Your task to perform on an android device: open app "Reddit" Image 0: 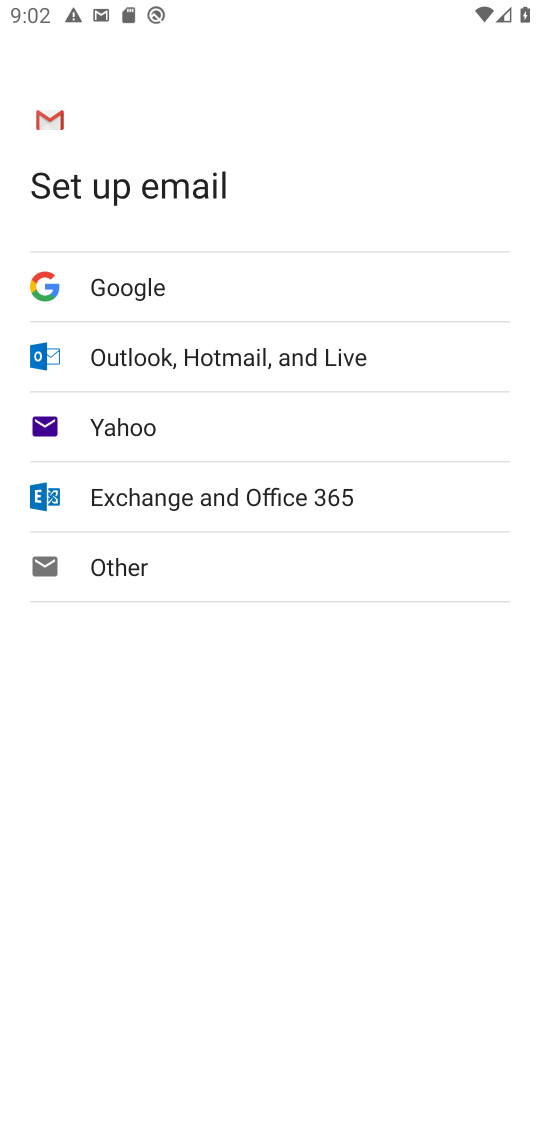
Step 0: press home button
Your task to perform on an android device: open app "Reddit" Image 1: 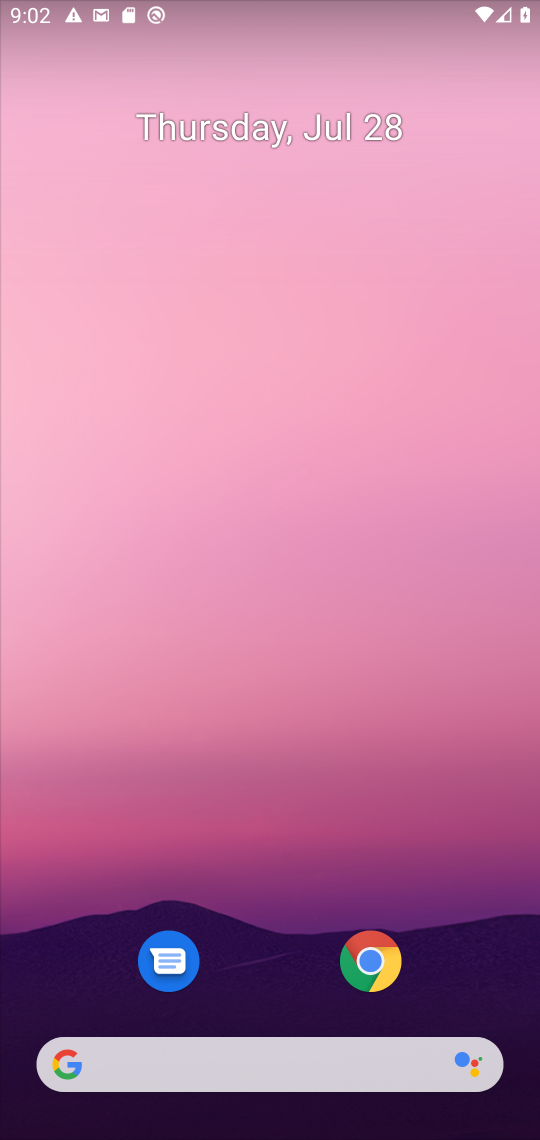
Step 1: drag from (269, 806) to (219, 205)
Your task to perform on an android device: open app "Reddit" Image 2: 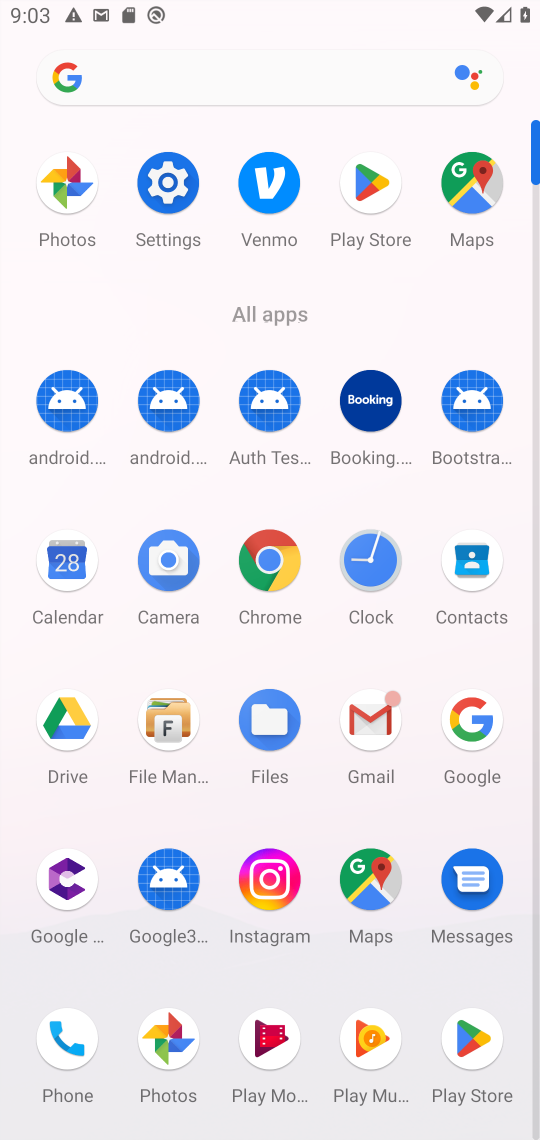
Step 2: click (457, 1025)
Your task to perform on an android device: open app "Reddit" Image 3: 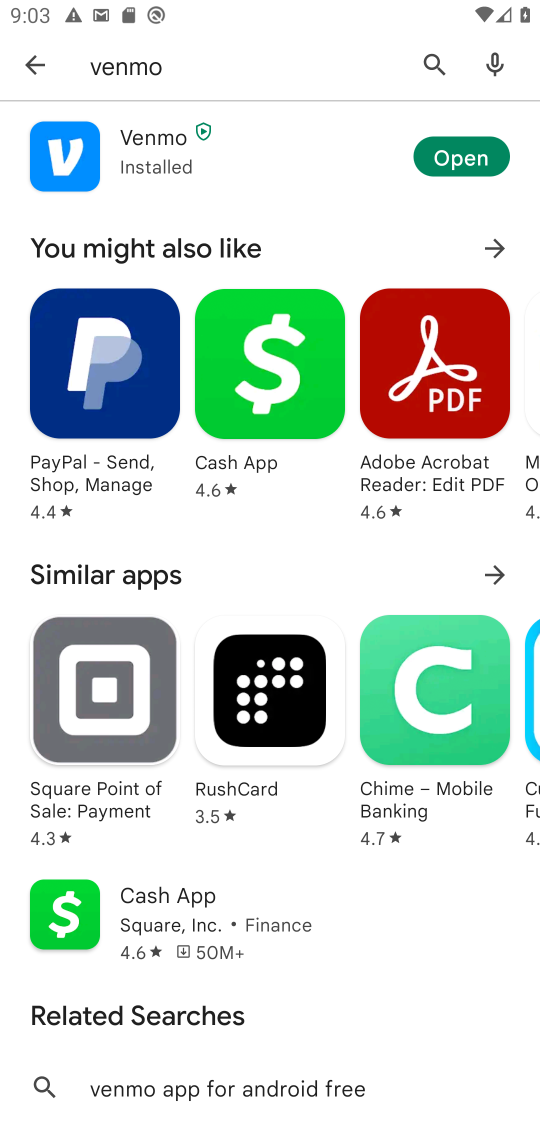
Step 3: click (435, 78)
Your task to perform on an android device: open app "Reddit" Image 4: 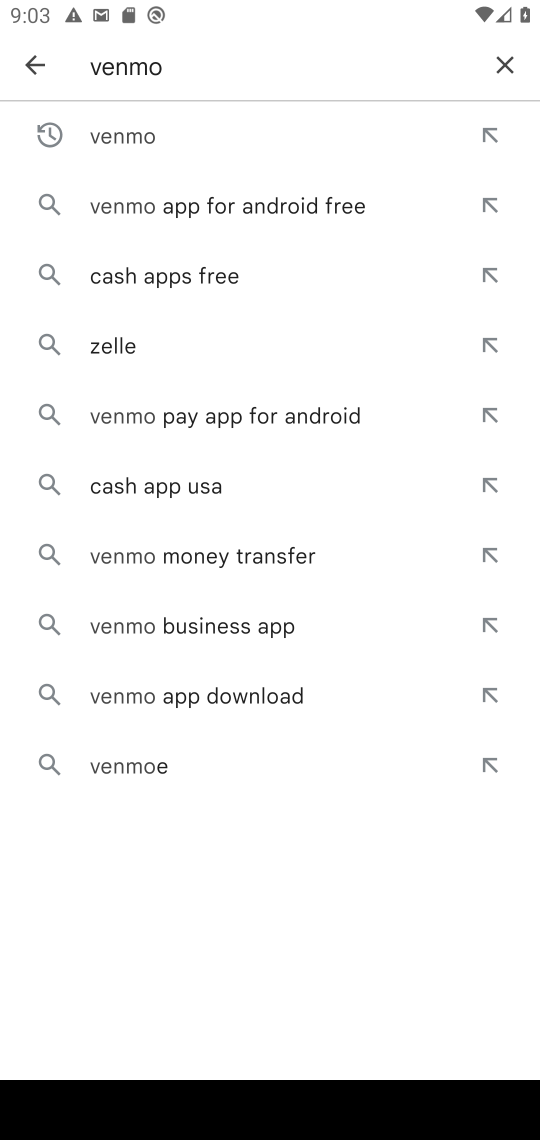
Step 4: click (489, 65)
Your task to perform on an android device: open app "Reddit" Image 5: 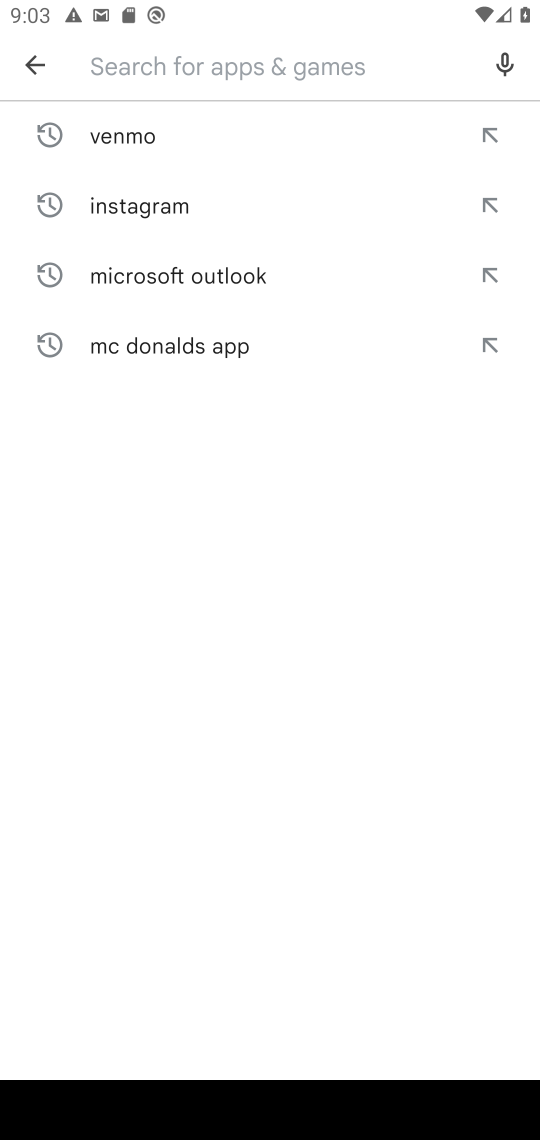
Step 5: type "reddit"
Your task to perform on an android device: open app "Reddit" Image 6: 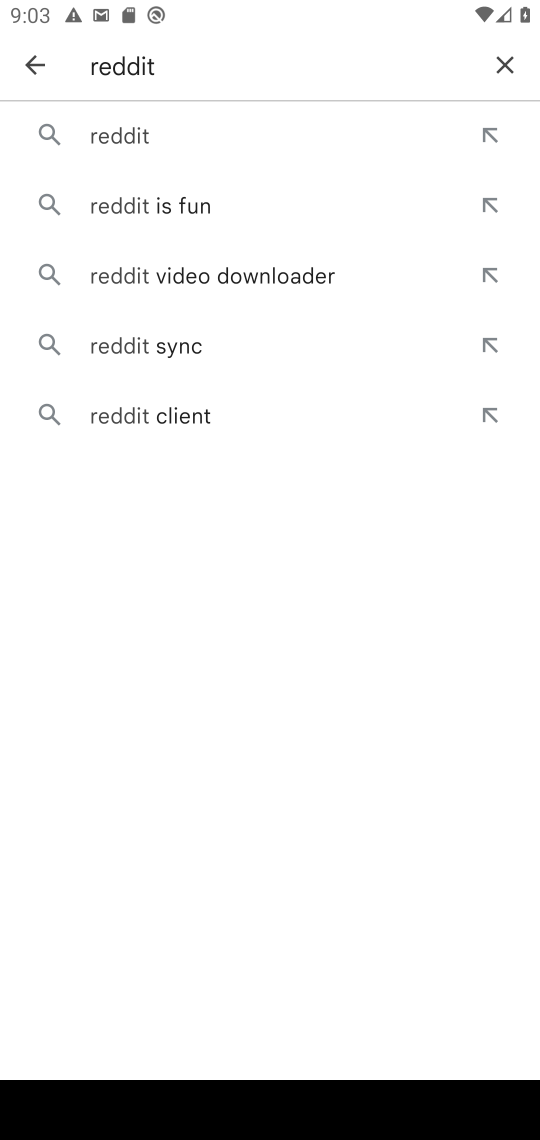
Step 6: click (140, 129)
Your task to perform on an android device: open app "Reddit" Image 7: 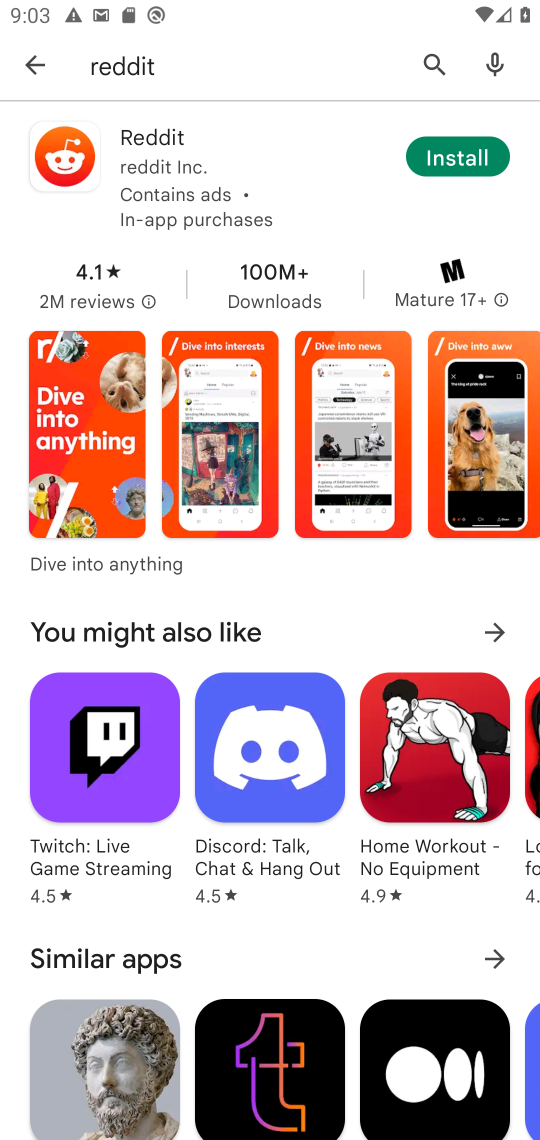
Step 7: click (460, 152)
Your task to perform on an android device: open app "Reddit" Image 8: 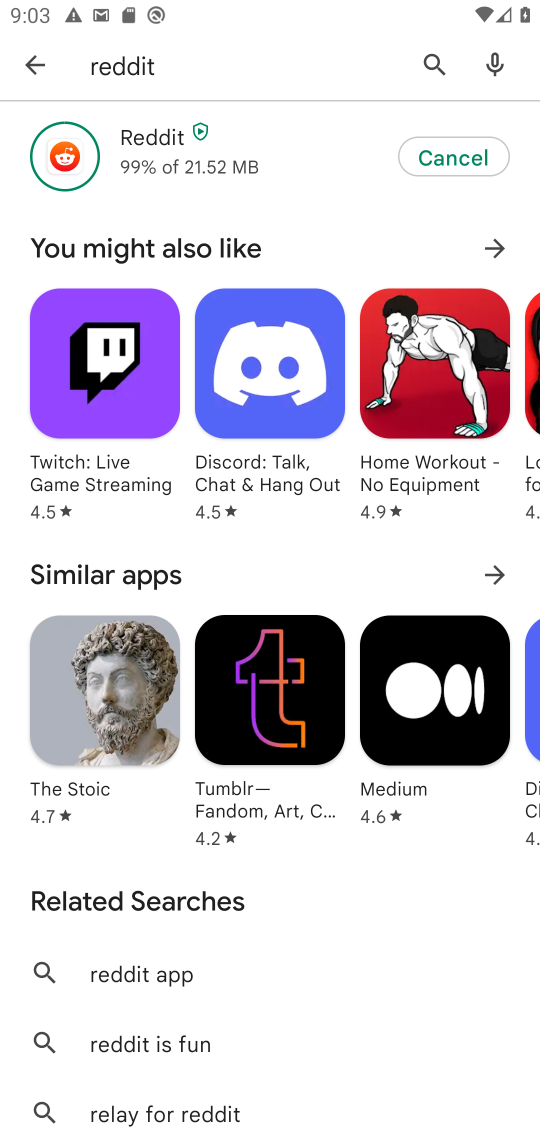
Step 8: click (492, 148)
Your task to perform on an android device: open app "Reddit" Image 9: 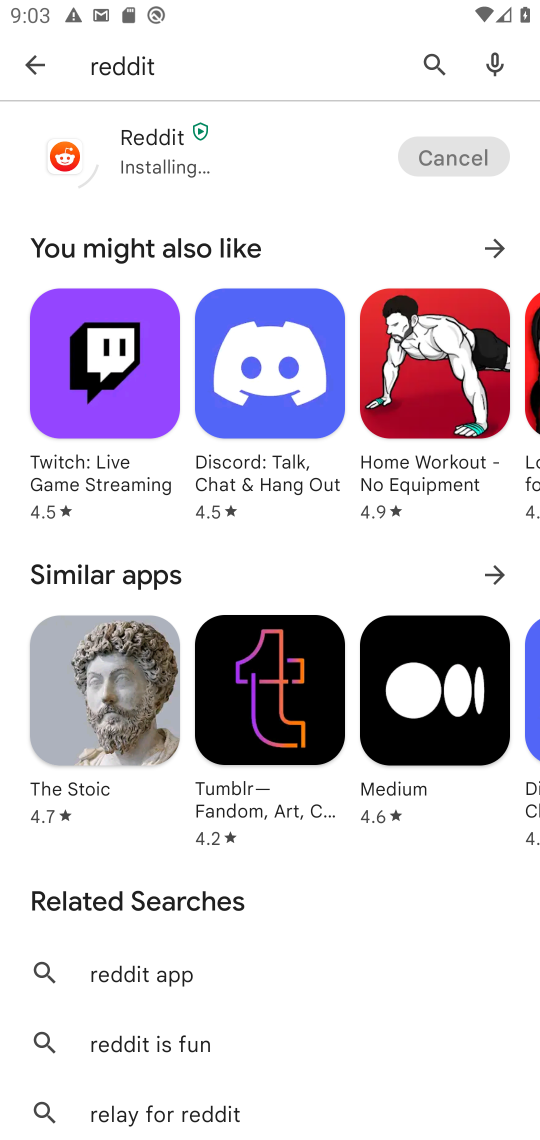
Step 9: task complete